Your task to perform on an android device: When is my next appointment? Image 0: 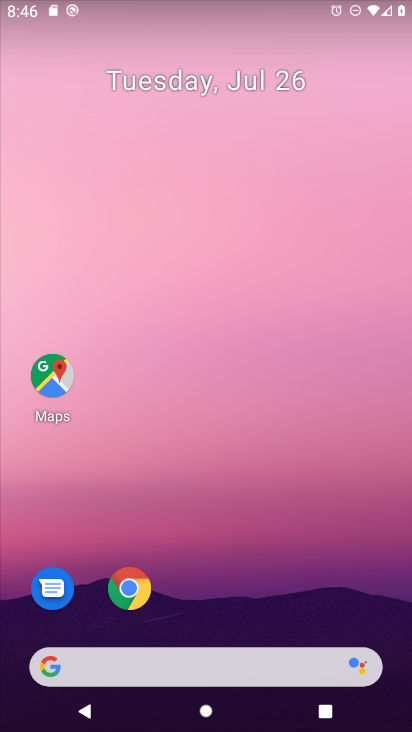
Step 0: drag from (194, 645) to (157, 180)
Your task to perform on an android device: When is my next appointment? Image 1: 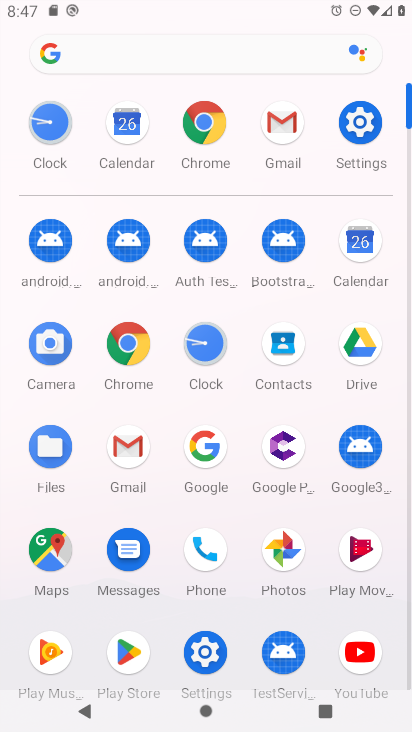
Step 1: click (353, 276)
Your task to perform on an android device: When is my next appointment? Image 2: 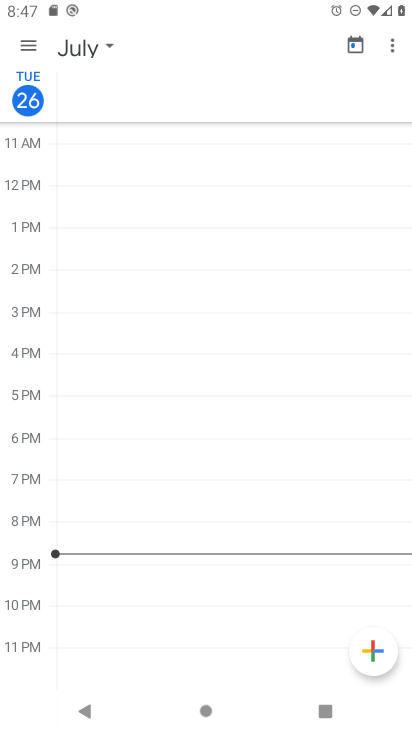
Step 2: click (34, 49)
Your task to perform on an android device: When is my next appointment? Image 3: 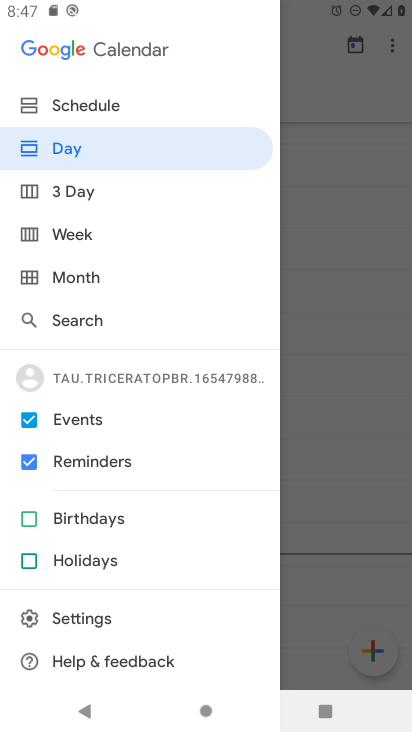
Step 3: click (82, 108)
Your task to perform on an android device: When is my next appointment? Image 4: 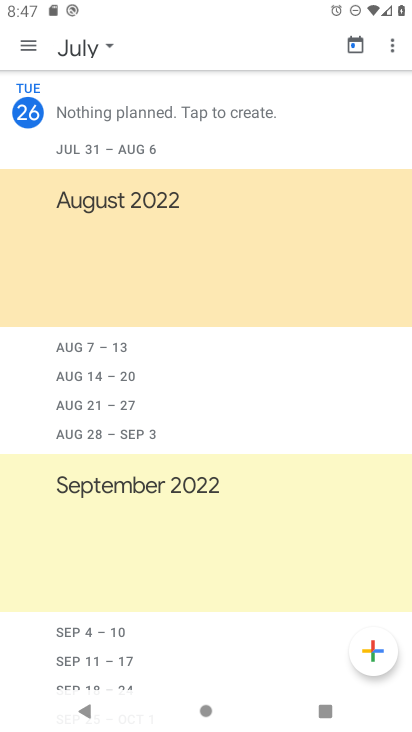
Step 4: task complete